Your task to perform on an android device: check data usage Image 0: 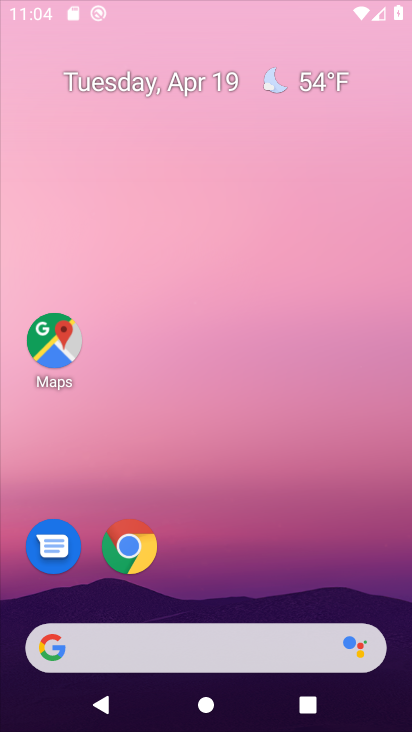
Step 0: drag from (256, 707) to (278, 36)
Your task to perform on an android device: check data usage Image 1: 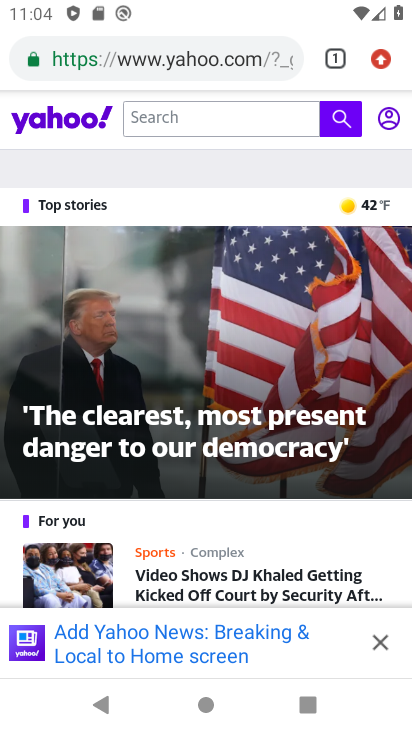
Step 1: press home button
Your task to perform on an android device: check data usage Image 2: 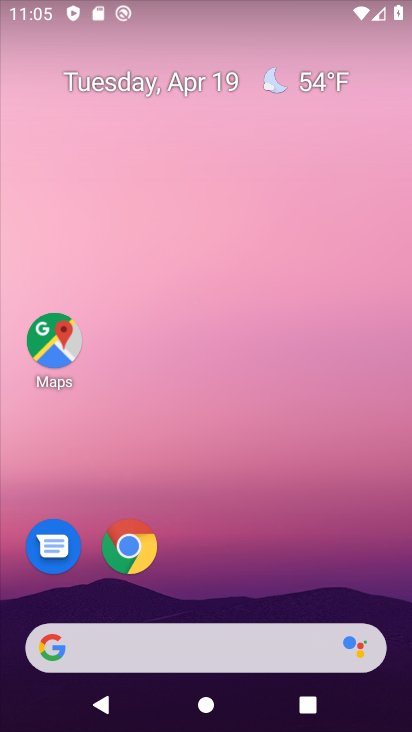
Step 2: drag from (256, 710) to (231, 117)
Your task to perform on an android device: check data usage Image 3: 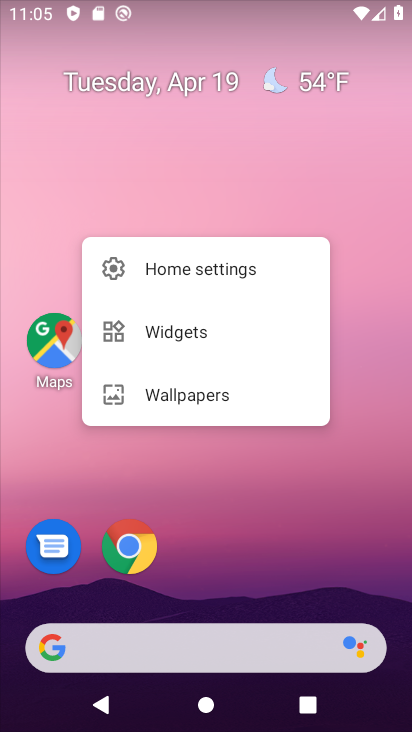
Step 3: drag from (255, 716) to (265, 149)
Your task to perform on an android device: check data usage Image 4: 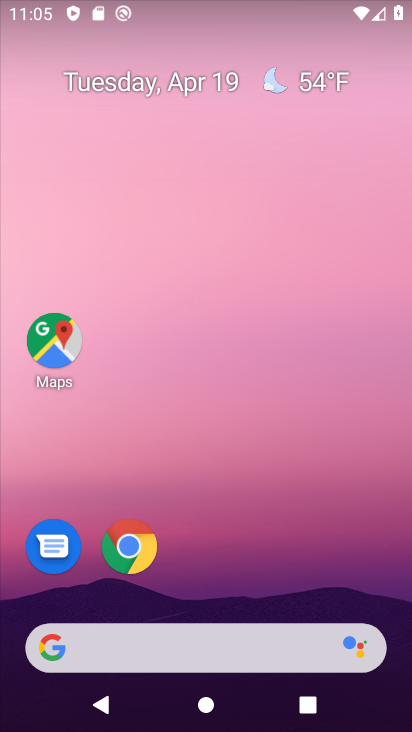
Step 4: drag from (248, 662) to (254, 65)
Your task to perform on an android device: check data usage Image 5: 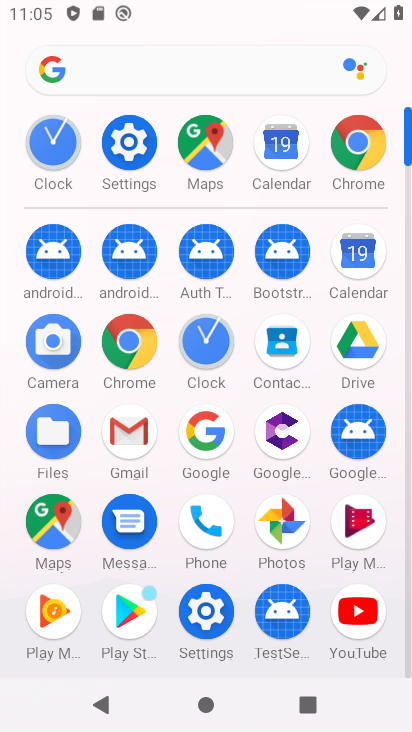
Step 5: click (142, 147)
Your task to perform on an android device: check data usage Image 6: 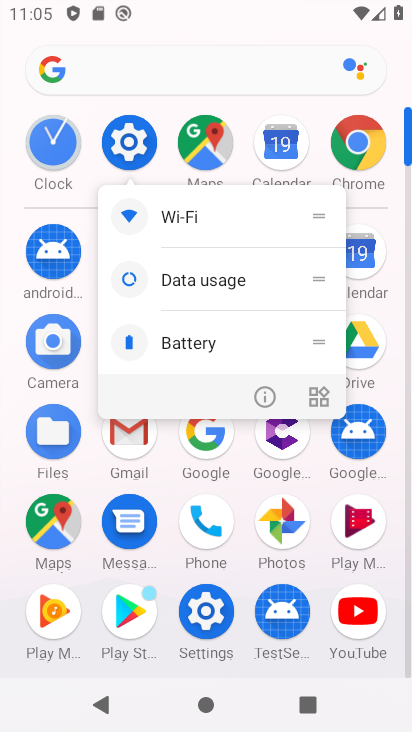
Step 6: click (230, 290)
Your task to perform on an android device: check data usage Image 7: 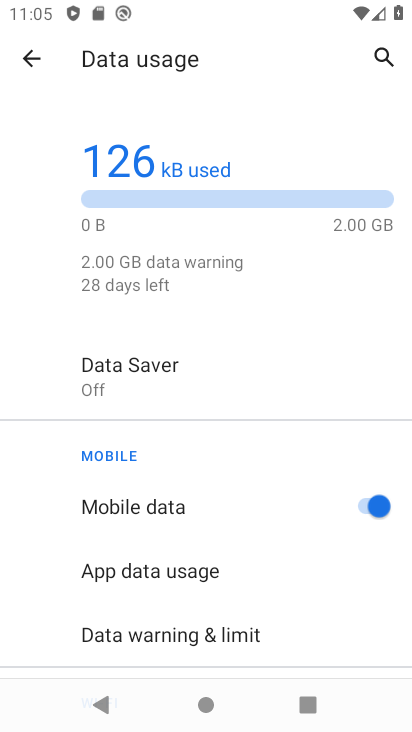
Step 7: task complete